Your task to perform on an android device: Go to accessibility settings Image 0: 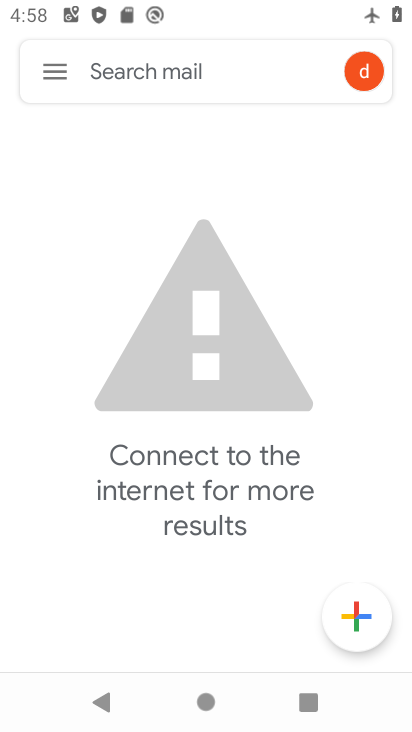
Step 0: press home button
Your task to perform on an android device: Go to accessibility settings Image 1: 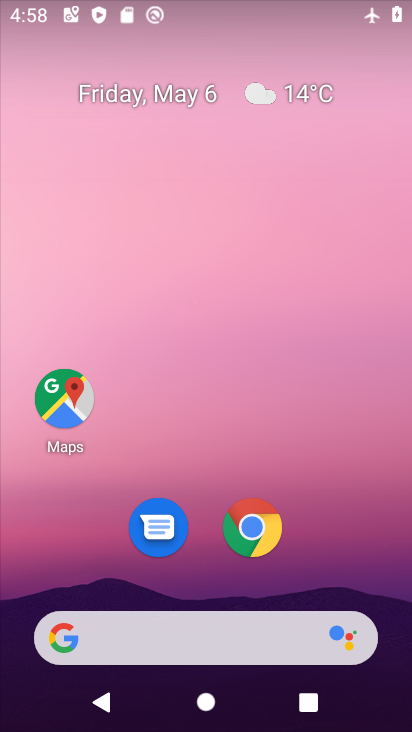
Step 1: drag from (231, 729) to (233, 208)
Your task to perform on an android device: Go to accessibility settings Image 2: 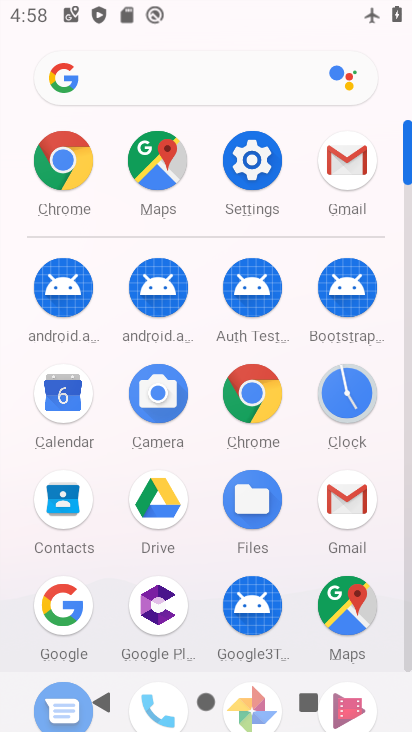
Step 2: click (254, 168)
Your task to perform on an android device: Go to accessibility settings Image 3: 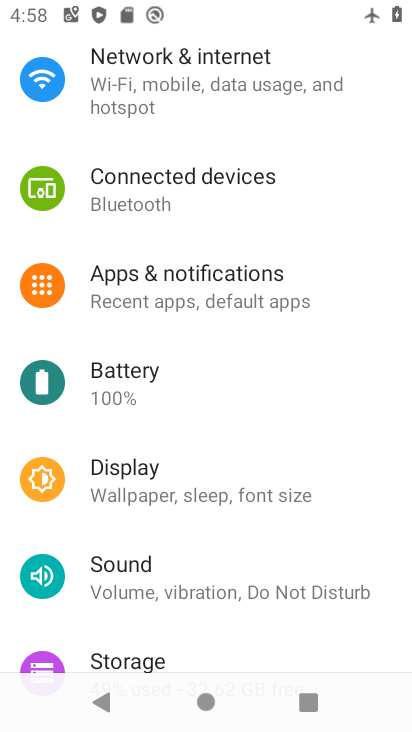
Step 3: drag from (205, 638) to (211, 247)
Your task to perform on an android device: Go to accessibility settings Image 4: 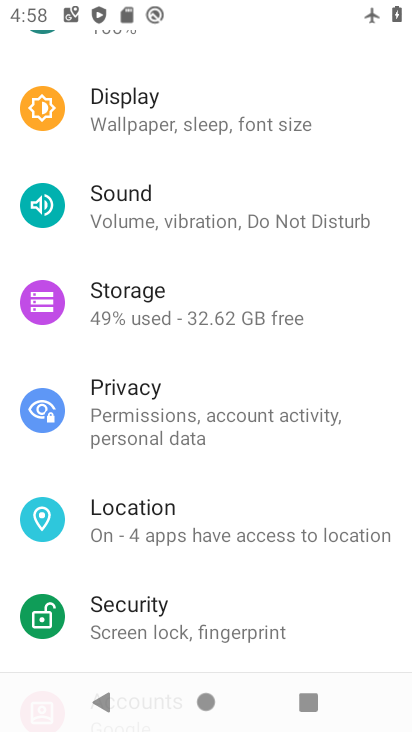
Step 4: drag from (213, 618) to (213, 255)
Your task to perform on an android device: Go to accessibility settings Image 5: 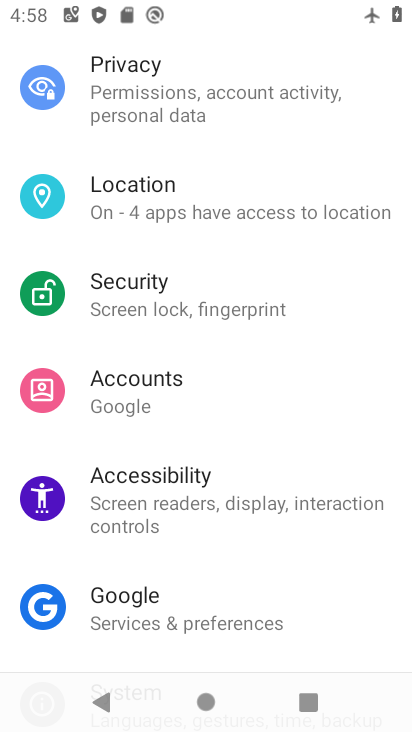
Step 5: click (165, 489)
Your task to perform on an android device: Go to accessibility settings Image 6: 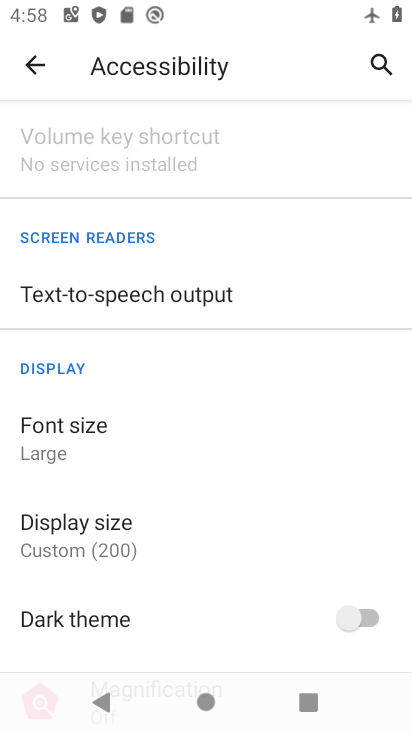
Step 6: task complete